Your task to perform on an android device: Go to eBay Image 0: 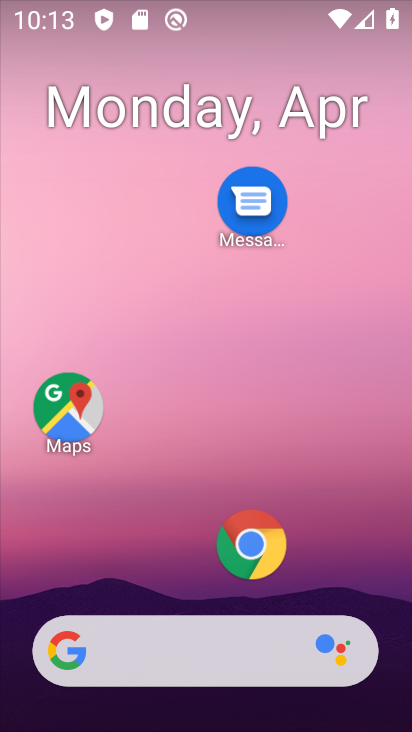
Step 0: drag from (187, 555) to (200, 29)
Your task to perform on an android device: Go to eBay Image 1: 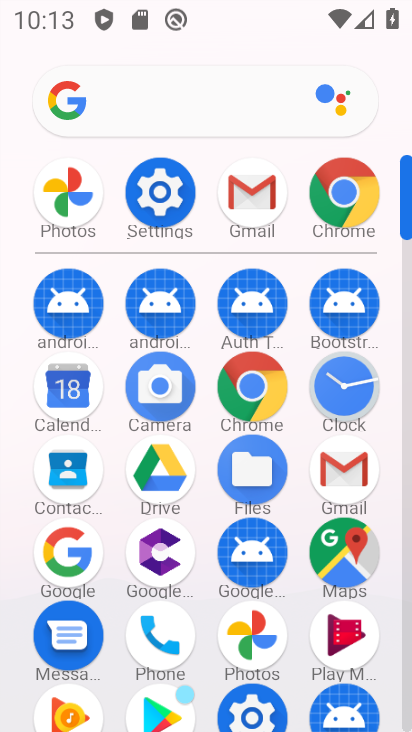
Step 1: click (251, 376)
Your task to perform on an android device: Go to eBay Image 2: 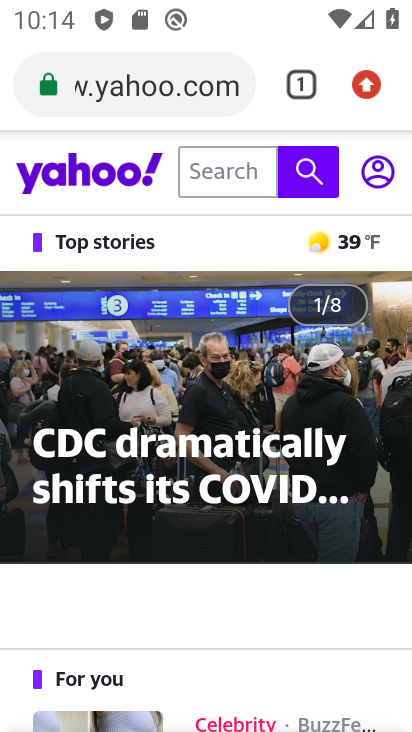
Step 2: click (299, 85)
Your task to perform on an android device: Go to eBay Image 3: 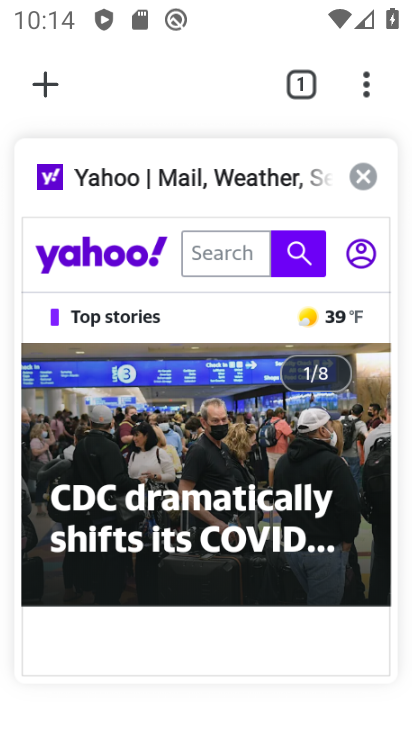
Step 3: click (357, 172)
Your task to perform on an android device: Go to eBay Image 4: 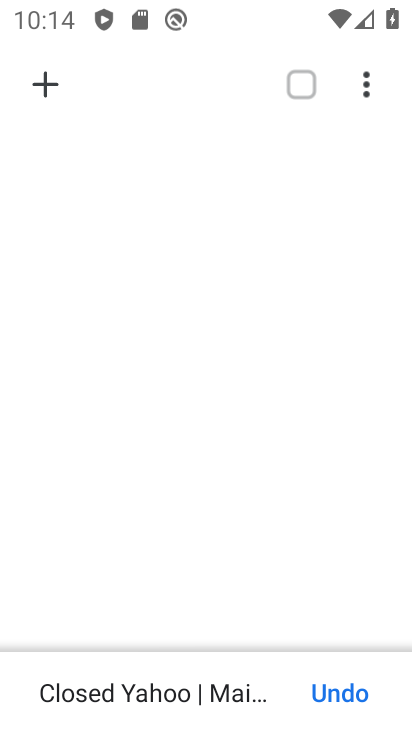
Step 4: click (49, 85)
Your task to perform on an android device: Go to eBay Image 5: 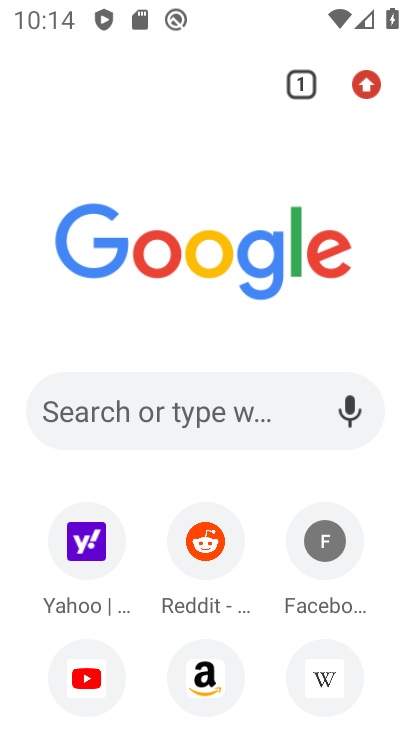
Step 5: click (147, 416)
Your task to perform on an android device: Go to eBay Image 6: 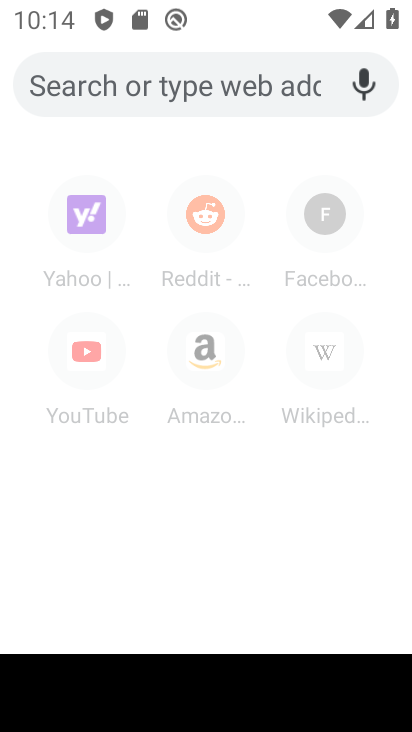
Step 6: type "ebay.com"
Your task to perform on an android device: Go to eBay Image 7: 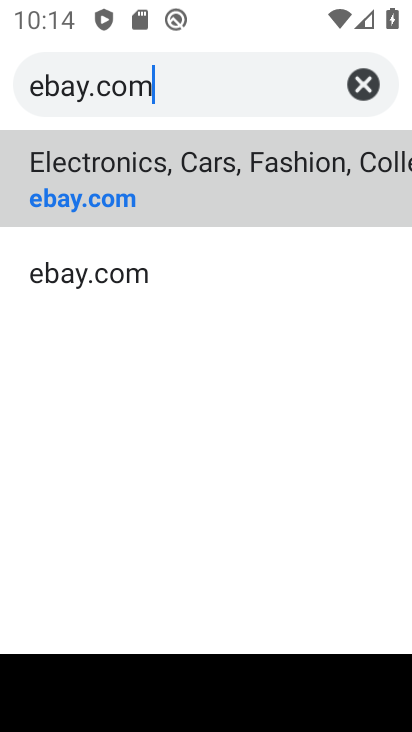
Step 7: click (276, 184)
Your task to perform on an android device: Go to eBay Image 8: 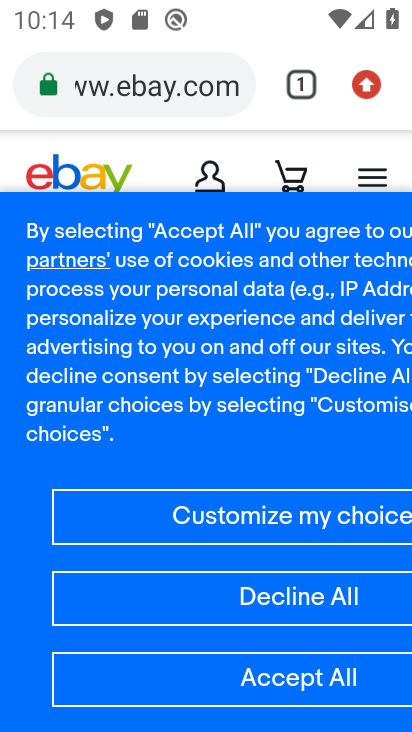
Step 8: click (229, 515)
Your task to perform on an android device: Go to eBay Image 9: 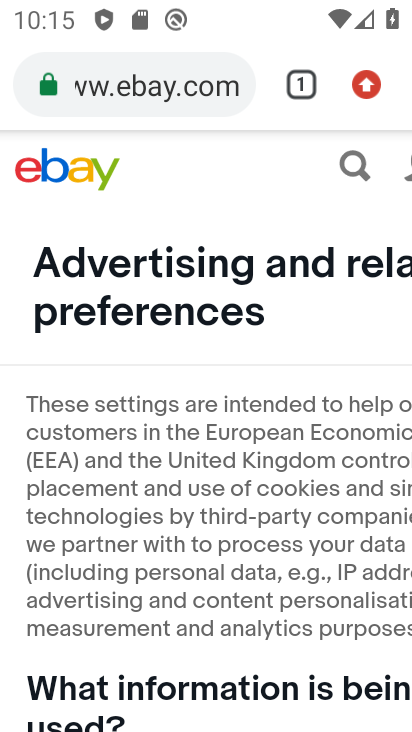
Step 9: task complete